Your task to perform on an android device: Is it going to rain today? Image 0: 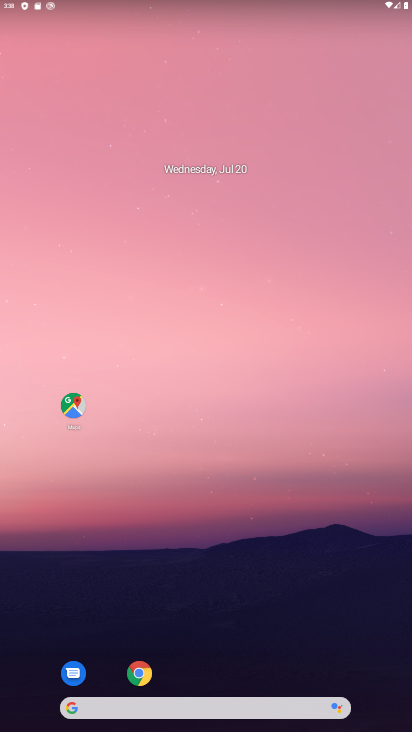
Step 0: click (142, 679)
Your task to perform on an android device: Is it going to rain today? Image 1: 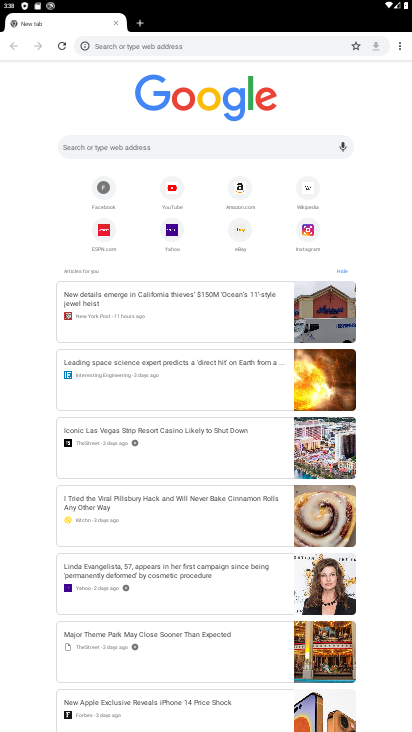
Step 1: click (224, 41)
Your task to perform on an android device: Is it going to rain today? Image 2: 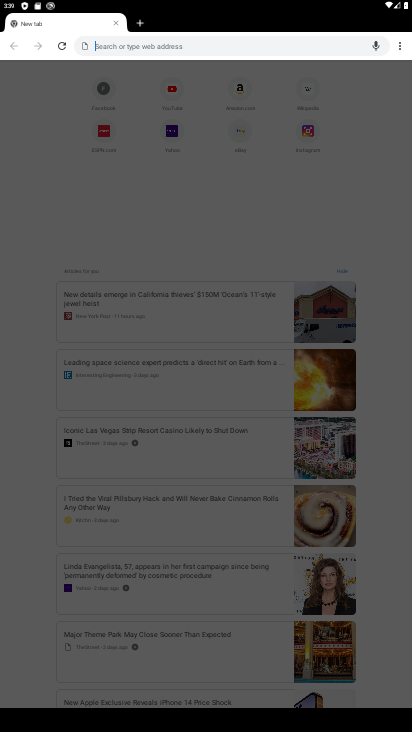
Step 2: type "Is it going to rain today?"
Your task to perform on an android device: Is it going to rain today? Image 3: 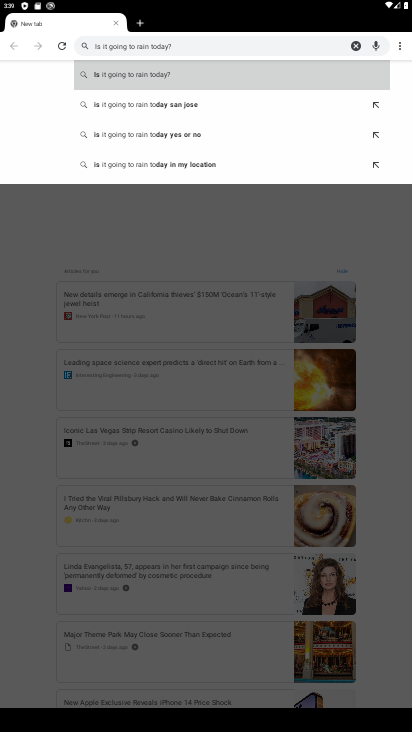
Step 3: click (163, 78)
Your task to perform on an android device: Is it going to rain today? Image 4: 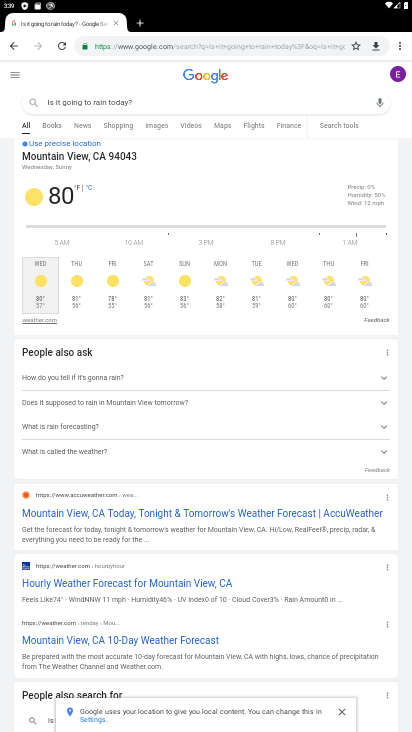
Step 4: task complete